Your task to perform on an android device: turn on improve location accuracy Image 0: 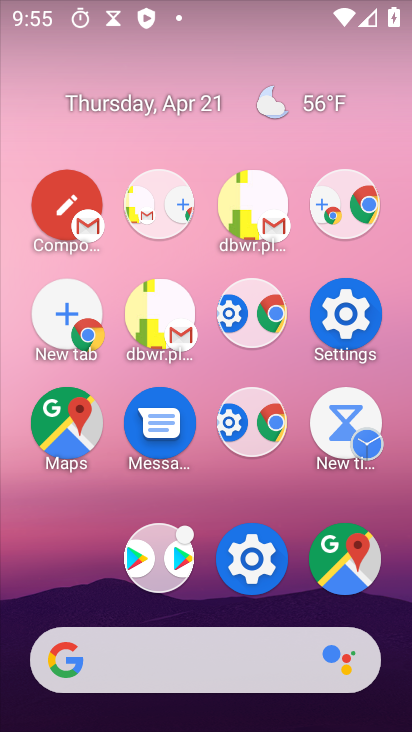
Step 0: drag from (289, 687) to (250, 161)
Your task to perform on an android device: turn on improve location accuracy Image 1: 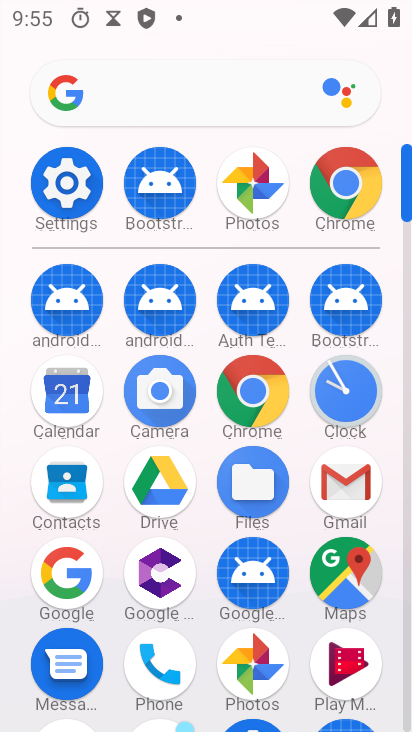
Step 1: click (68, 188)
Your task to perform on an android device: turn on improve location accuracy Image 2: 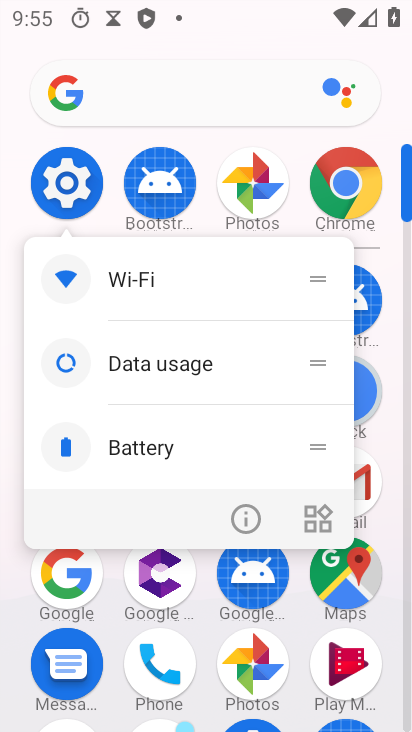
Step 2: click (79, 189)
Your task to perform on an android device: turn on improve location accuracy Image 3: 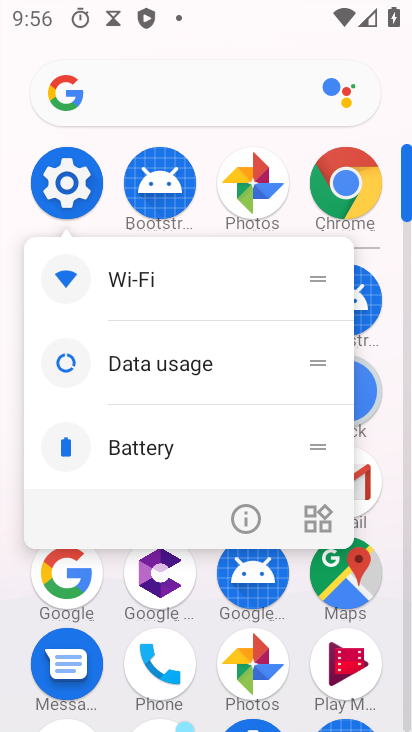
Step 3: click (62, 180)
Your task to perform on an android device: turn on improve location accuracy Image 4: 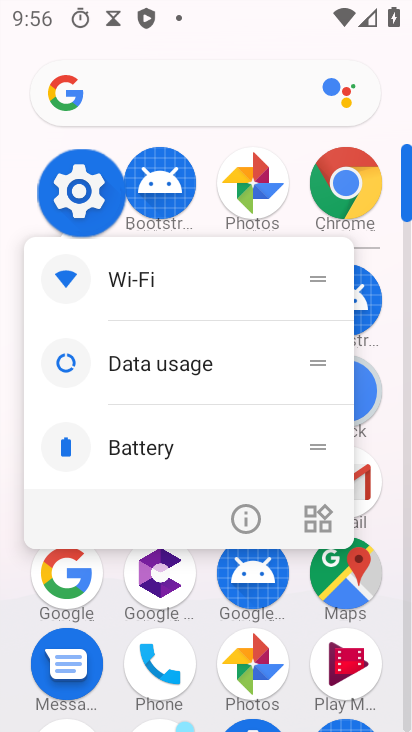
Step 4: click (79, 191)
Your task to perform on an android device: turn on improve location accuracy Image 5: 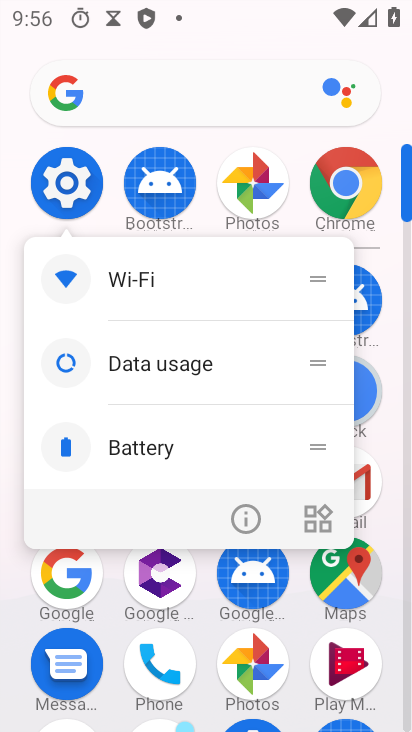
Step 5: click (79, 191)
Your task to perform on an android device: turn on improve location accuracy Image 6: 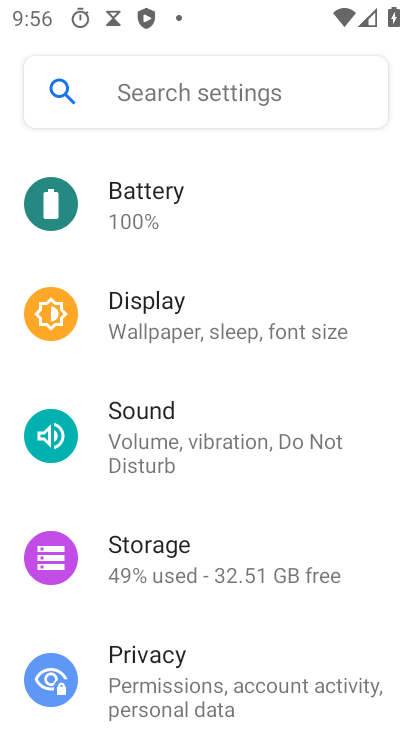
Step 6: drag from (226, 372) to (243, 500)
Your task to perform on an android device: turn on improve location accuracy Image 7: 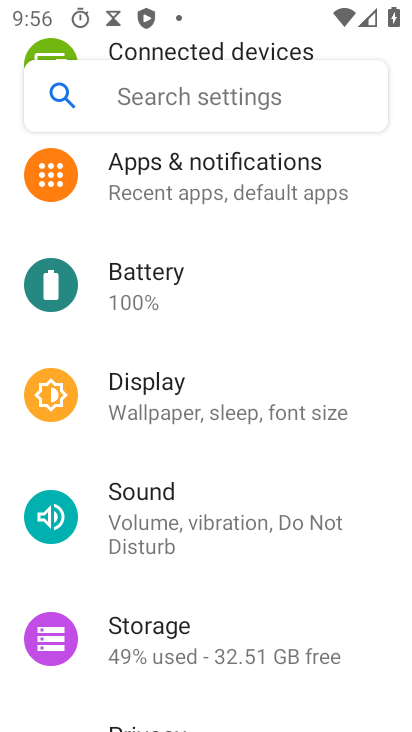
Step 7: click (235, 477)
Your task to perform on an android device: turn on improve location accuracy Image 8: 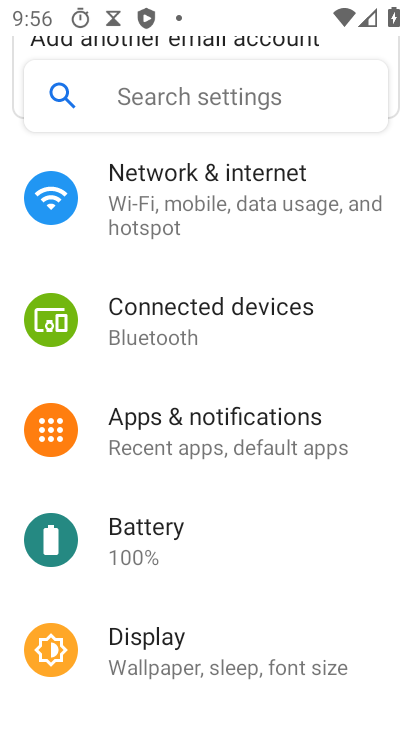
Step 8: drag from (236, 417) to (105, 513)
Your task to perform on an android device: turn on improve location accuracy Image 9: 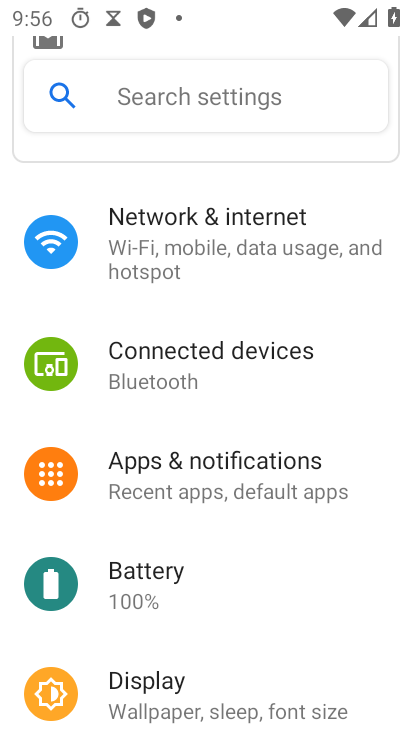
Step 9: drag from (160, 384) to (197, 534)
Your task to perform on an android device: turn on improve location accuracy Image 10: 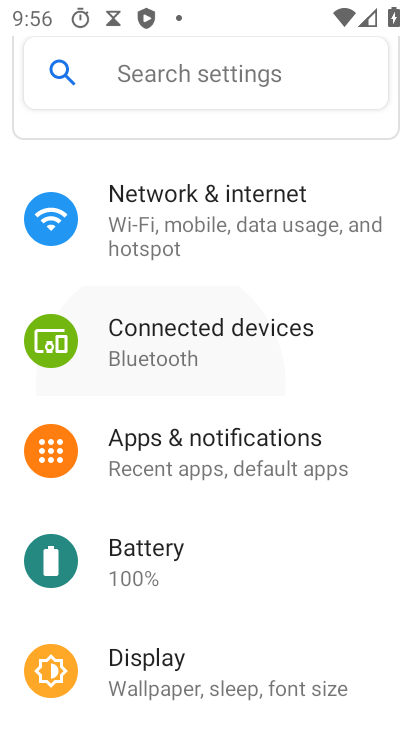
Step 10: drag from (172, 397) to (255, 484)
Your task to perform on an android device: turn on improve location accuracy Image 11: 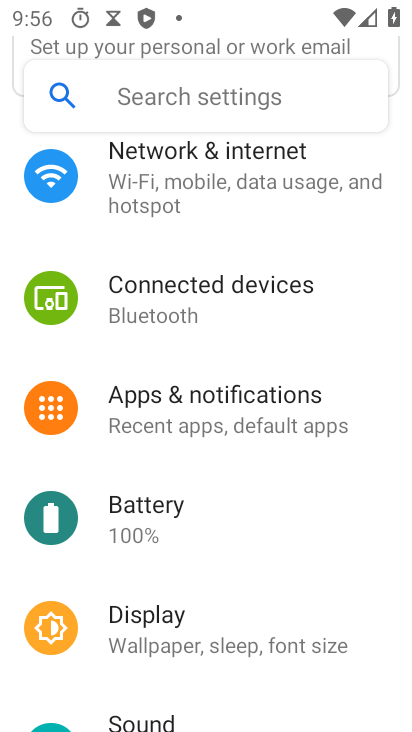
Step 11: drag from (218, 402) to (233, 494)
Your task to perform on an android device: turn on improve location accuracy Image 12: 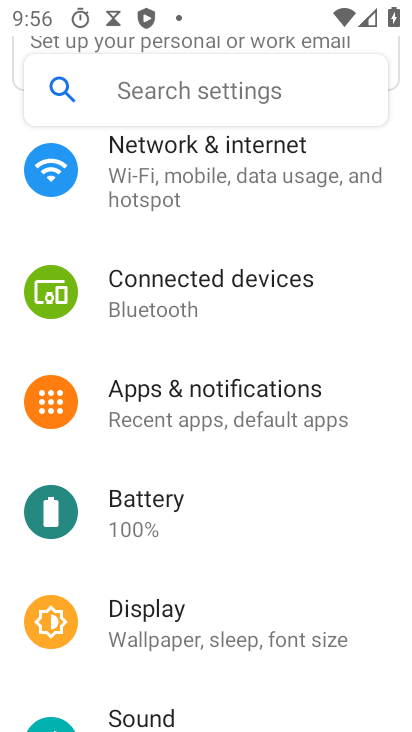
Step 12: drag from (225, 402) to (251, 506)
Your task to perform on an android device: turn on improve location accuracy Image 13: 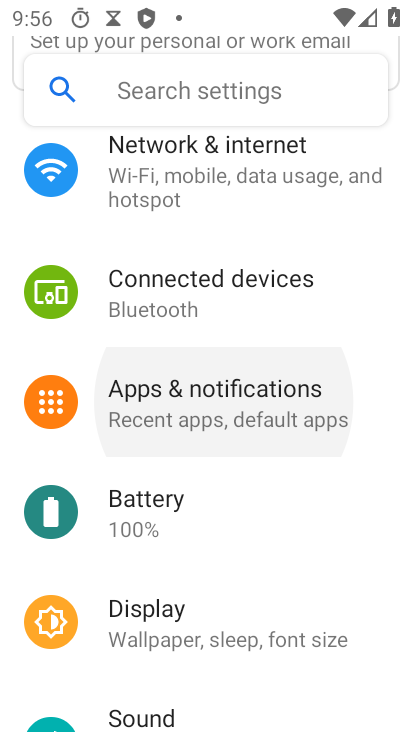
Step 13: drag from (224, 470) to (231, 509)
Your task to perform on an android device: turn on improve location accuracy Image 14: 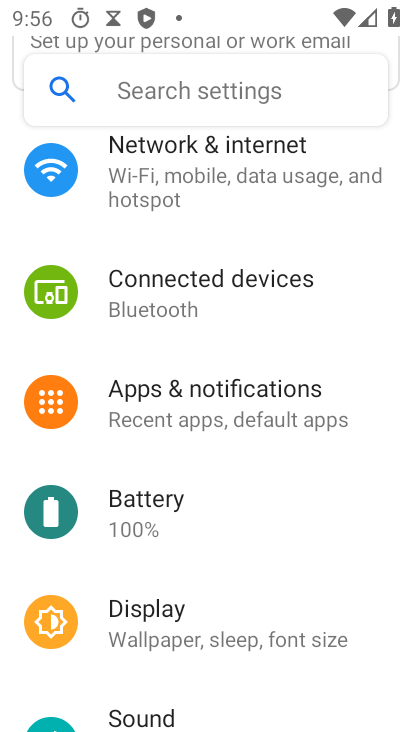
Step 14: drag from (173, 188) to (227, 417)
Your task to perform on an android device: turn on improve location accuracy Image 15: 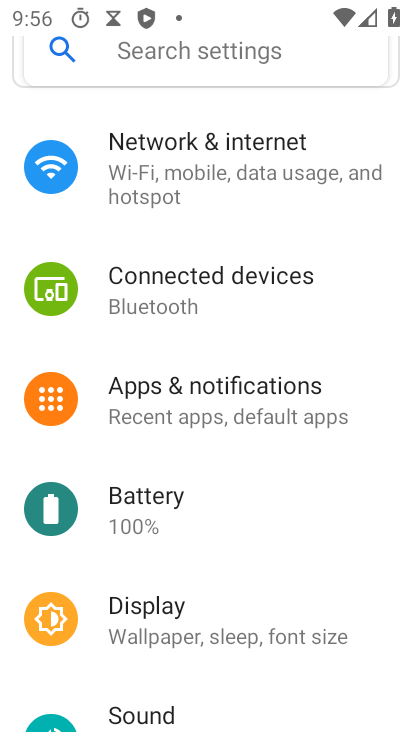
Step 15: drag from (171, 222) to (235, 408)
Your task to perform on an android device: turn on improve location accuracy Image 16: 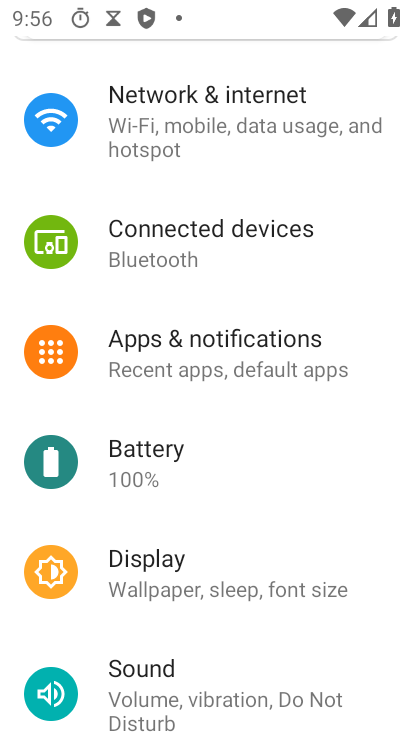
Step 16: drag from (234, 598) to (231, 189)
Your task to perform on an android device: turn on improve location accuracy Image 17: 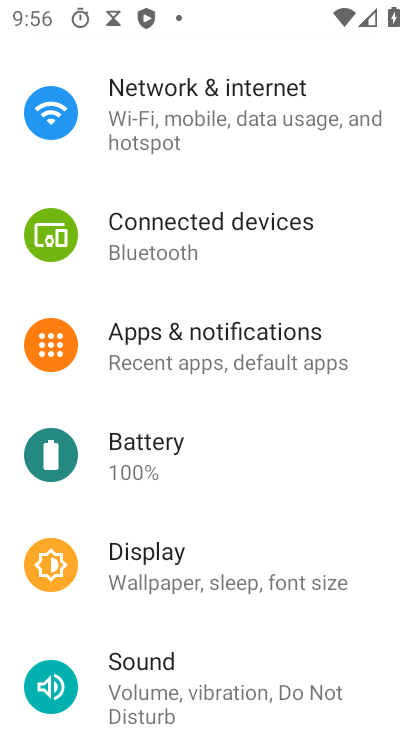
Step 17: drag from (278, 501) to (272, 131)
Your task to perform on an android device: turn on improve location accuracy Image 18: 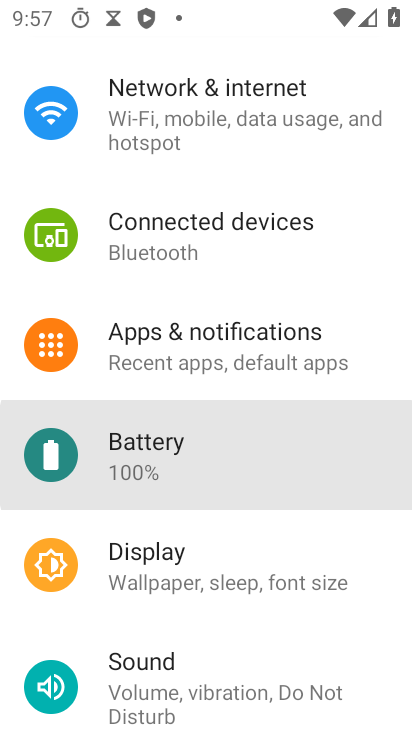
Step 18: drag from (220, 116) to (226, 57)
Your task to perform on an android device: turn on improve location accuracy Image 19: 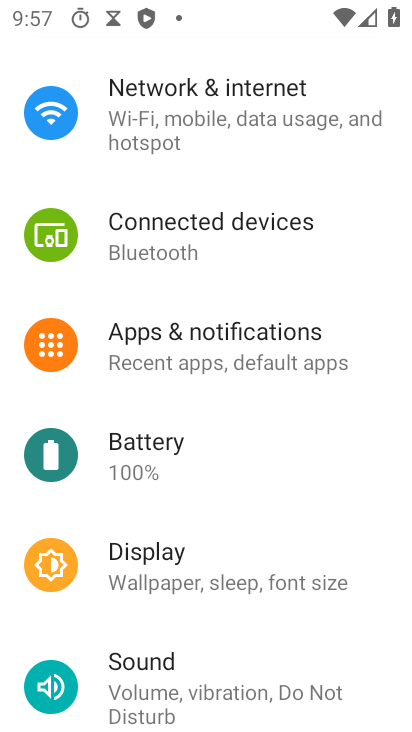
Step 19: drag from (211, 40) to (220, 229)
Your task to perform on an android device: turn on improve location accuracy Image 20: 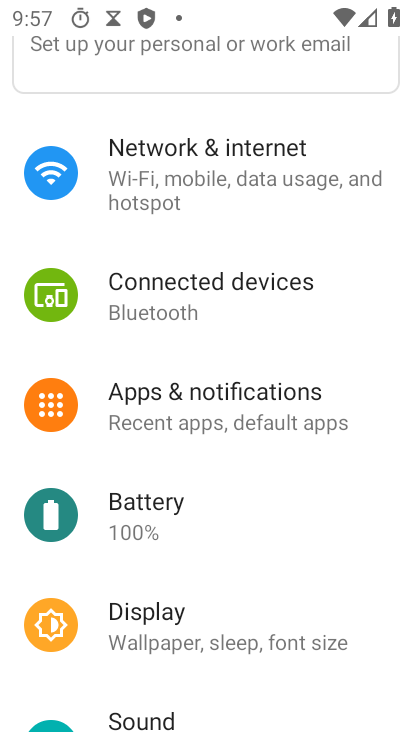
Step 20: drag from (226, 573) to (208, 198)
Your task to perform on an android device: turn on improve location accuracy Image 21: 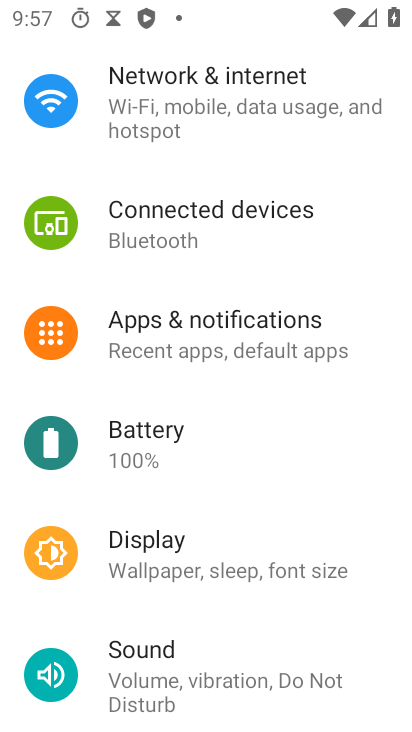
Step 21: drag from (234, 354) to (243, 226)
Your task to perform on an android device: turn on improve location accuracy Image 22: 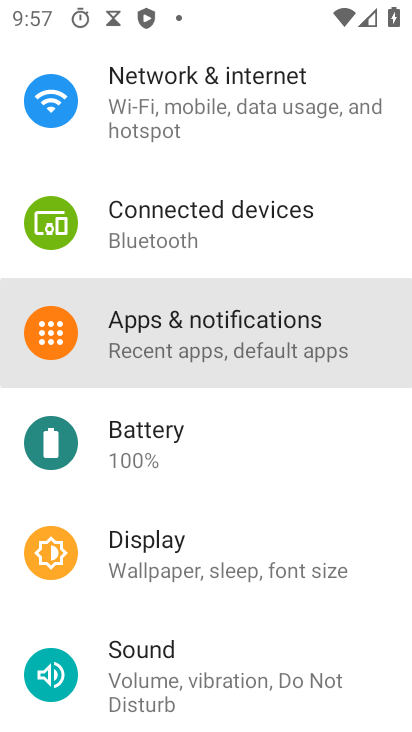
Step 22: drag from (263, 479) to (254, 91)
Your task to perform on an android device: turn on improve location accuracy Image 23: 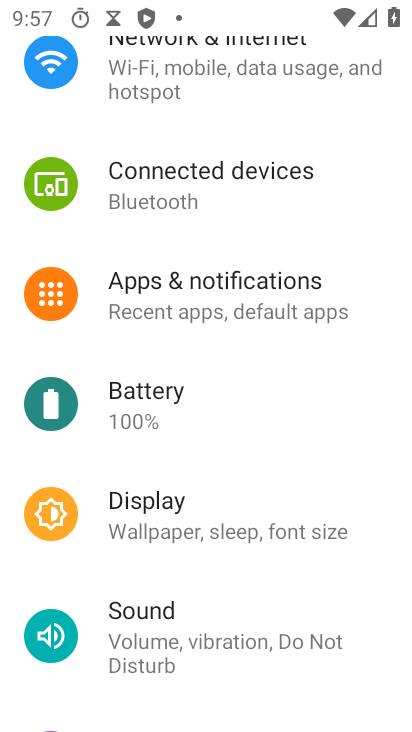
Step 23: drag from (236, 495) to (200, 141)
Your task to perform on an android device: turn on improve location accuracy Image 24: 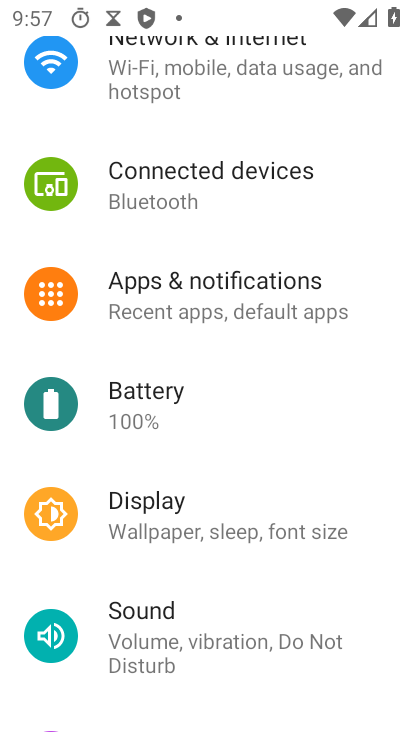
Step 24: drag from (197, 446) to (216, 165)
Your task to perform on an android device: turn on improve location accuracy Image 25: 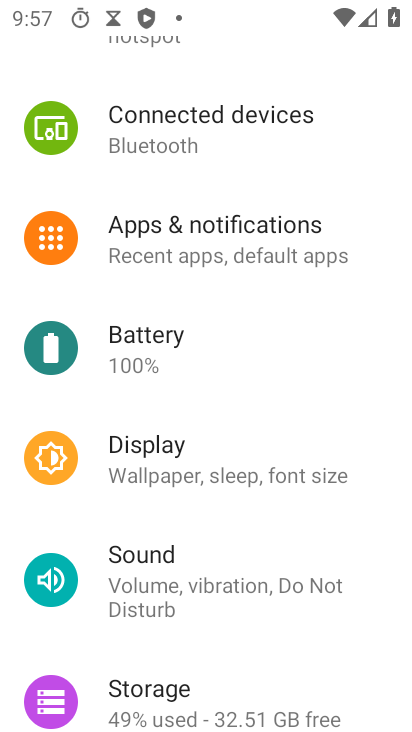
Step 25: drag from (226, 240) to (220, 150)
Your task to perform on an android device: turn on improve location accuracy Image 26: 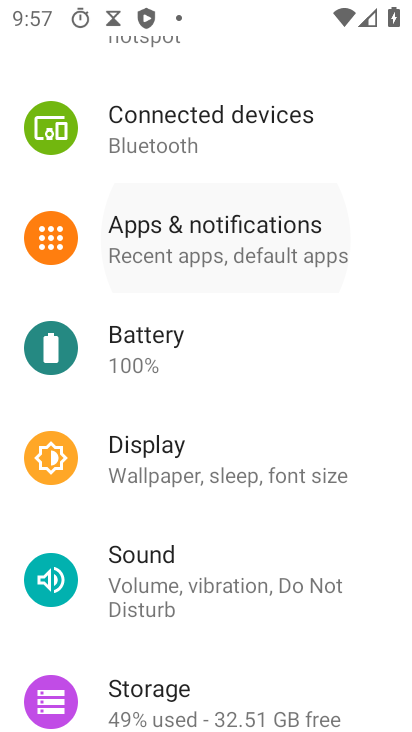
Step 26: drag from (218, 411) to (193, 198)
Your task to perform on an android device: turn on improve location accuracy Image 27: 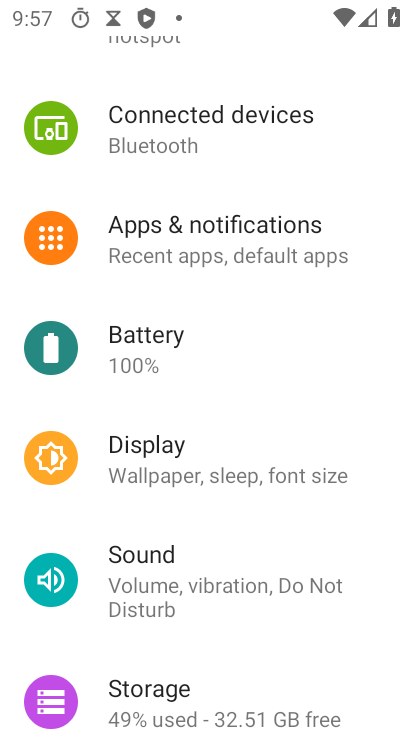
Step 27: drag from (238, 582) to (176, 227)
Your task to perform on an android device: turn on improve location accuracy Image 28: 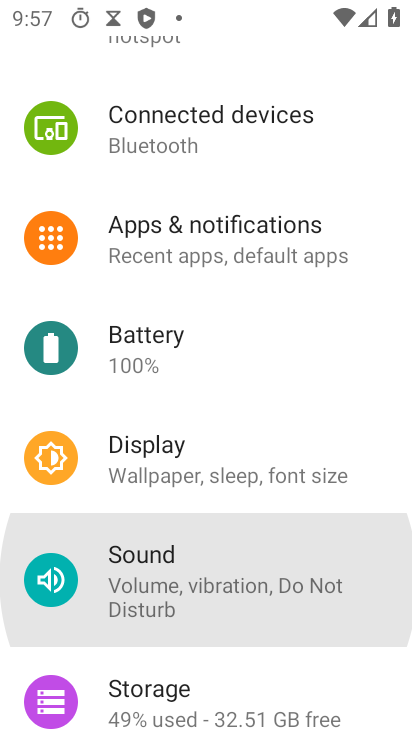
Step 28: drag from (248, 448) to (219, 122)
Your task to perform on an android device: turn on improve location accuracy Image 29: 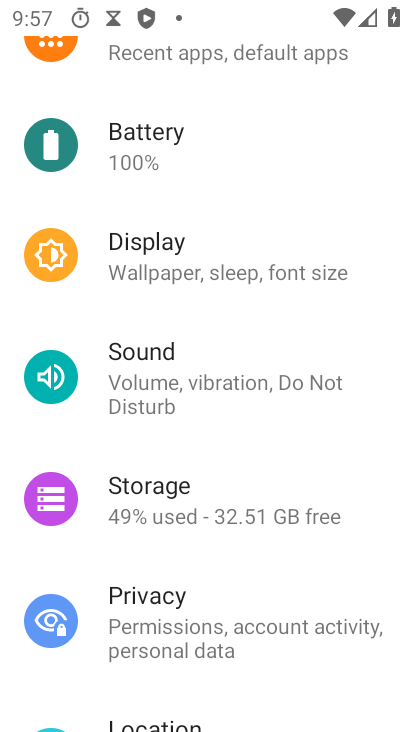
Step 29: drag from (215, 626) to (192, 44)
Your task to perform on an android device: turn on improve location accuracy Image 30: 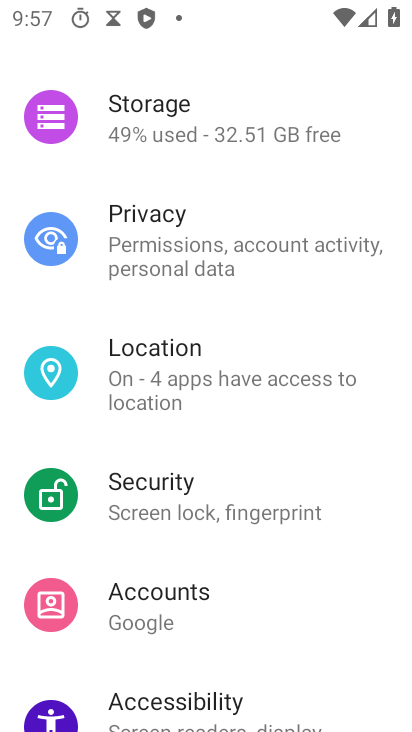
Step 30: click (161, 372)
Your task to perform on an android device: turn on improve location accuracy Image 31: 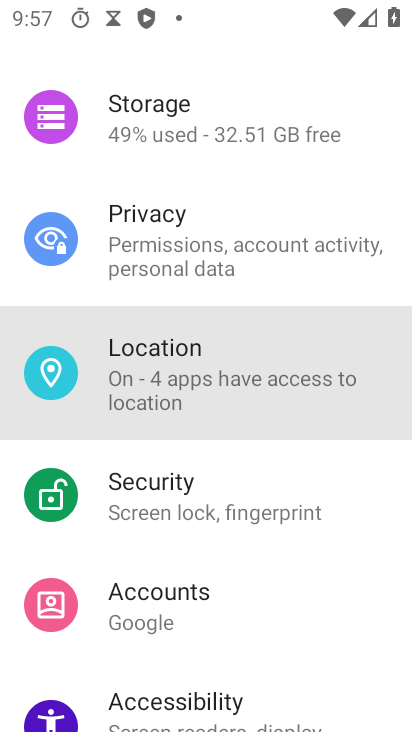
Step 31: click (162, 371)
Your task to perform on an android device: turn on improve location accuracy Image 32: 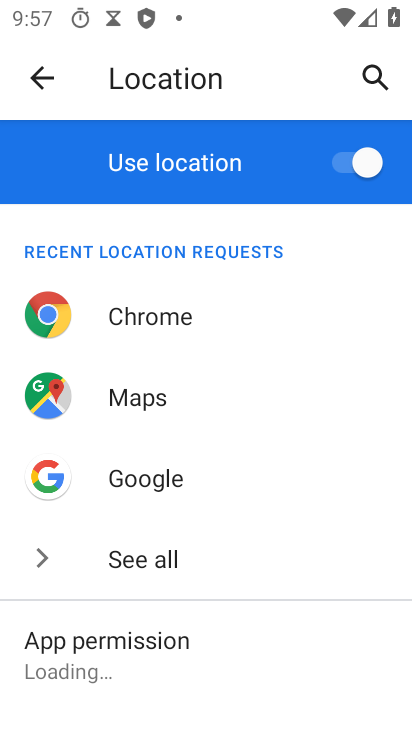
Step 32: drag from (191, 619) to (228, 111)
Your task to perform on an android device: turn on improve location accuracy Image 33: 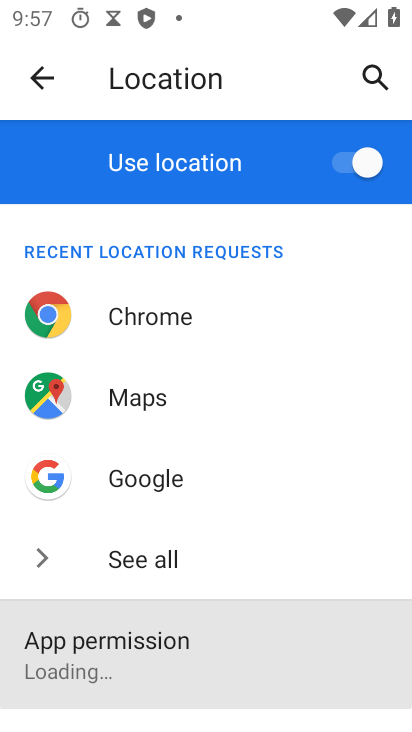
Step 33: drag from (197, 492) to (126, 125)
Your task to perform on an android device: turn on improve location accuracy Image 34: 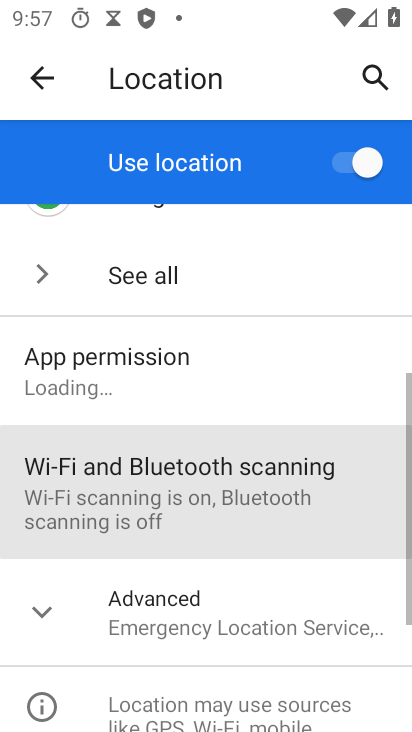
Step 34: drag from (221, 342) to (225, 156)
Your task to perform on an android device: turn on improve location accuracy Image 35: 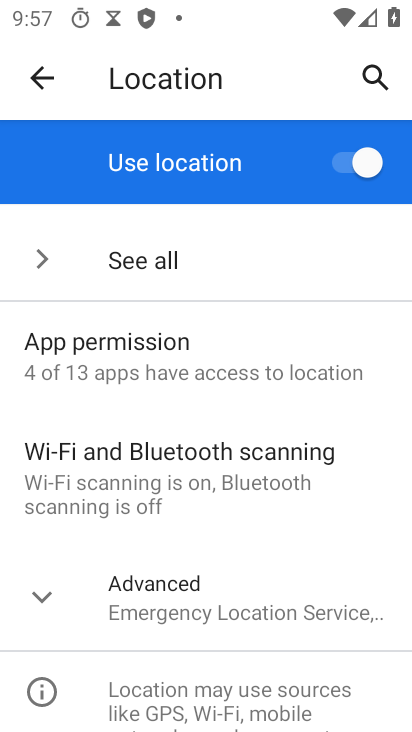
Step 35: click (170, 589)
Your task to perform on an android device: turn on improve location accuracy Image 36: 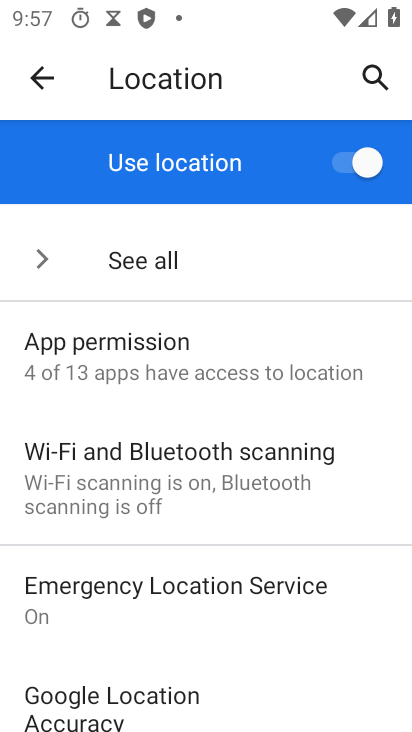
Step 36: drag from (215, 548) to (206, 252)
Your task to perform on an android device: turn on improve location accuracy Image 37: 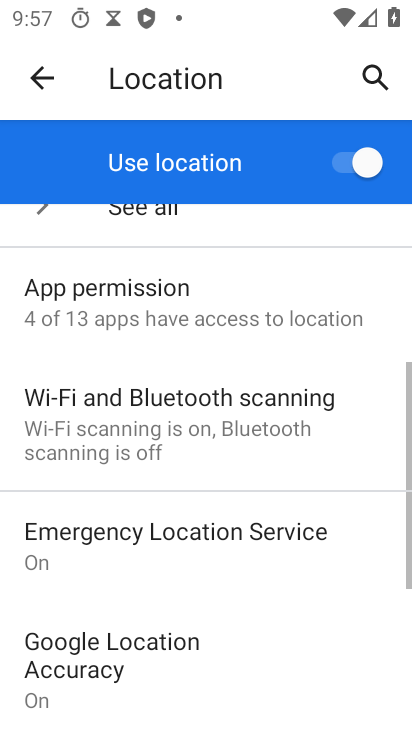
Step 37: drag from (268, 586) to (250, 102)
Your task to perform on an android device: turn on improve location accuracy Image 38: 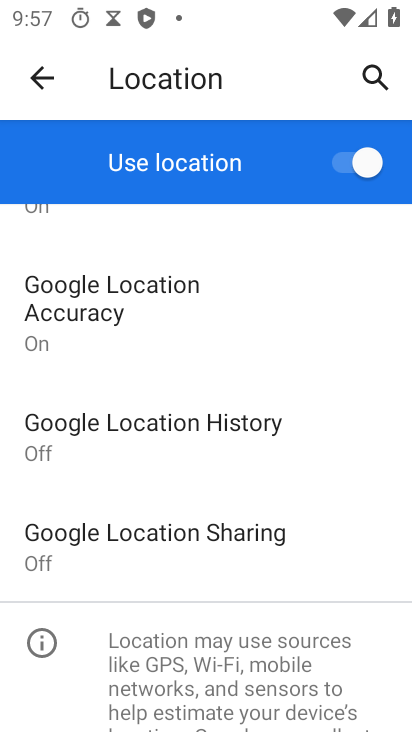
Step 38: click (71, 304)
Your task to perform on an android device: turn on improve location accuracy Image 39: 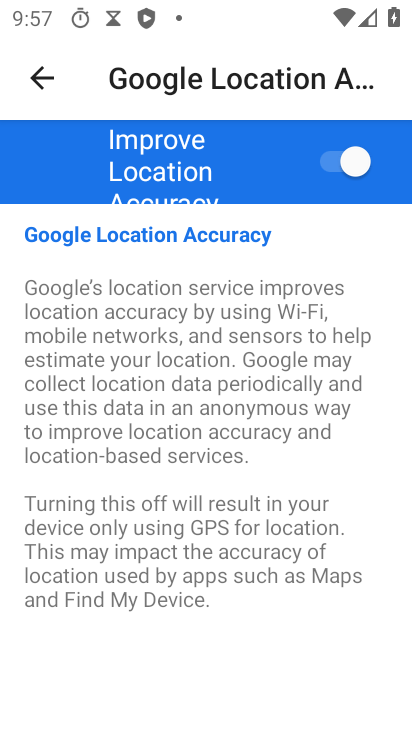
Step 39: task complete